Your task to perform on an android device: Is it going to rain tomorrow? Image 0: 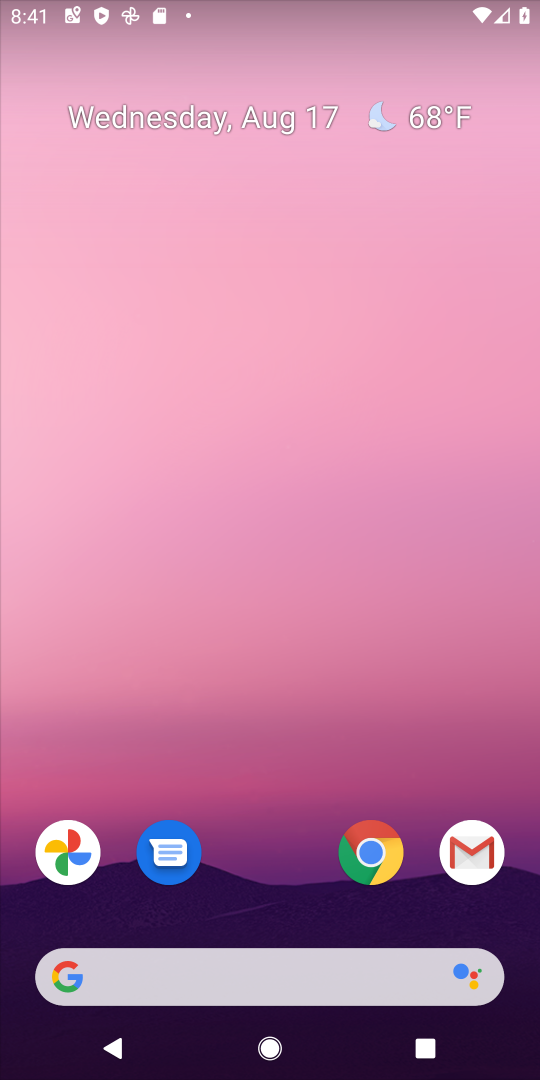
Step 0: click (163, 987)
Your task to perform on an android device: Is it going to rain tomorrow? Image 1: 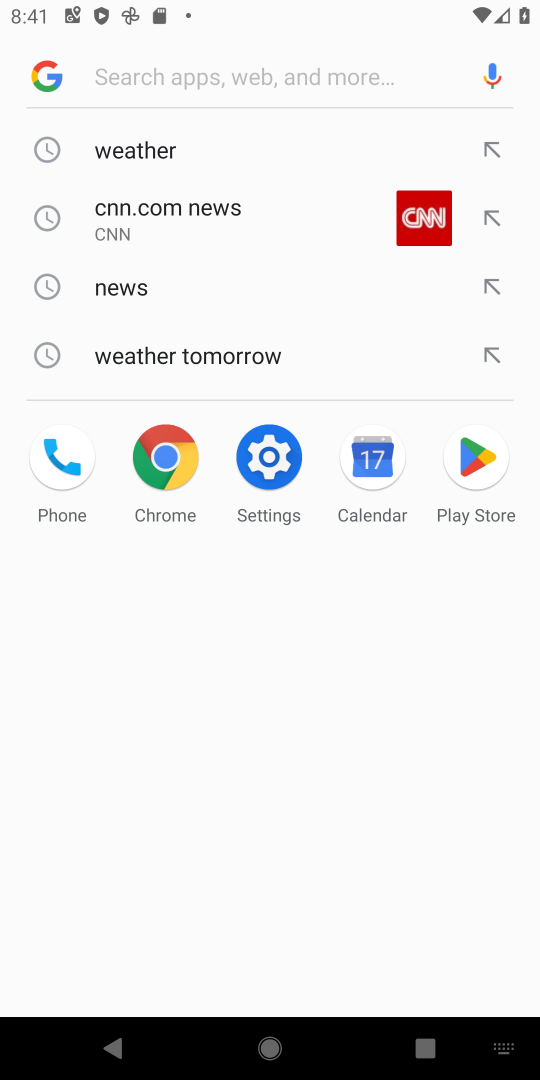
Step 1: click (123, 150)
Your task to perform on an android device: Is it going to rain tomorrow? Image 2: 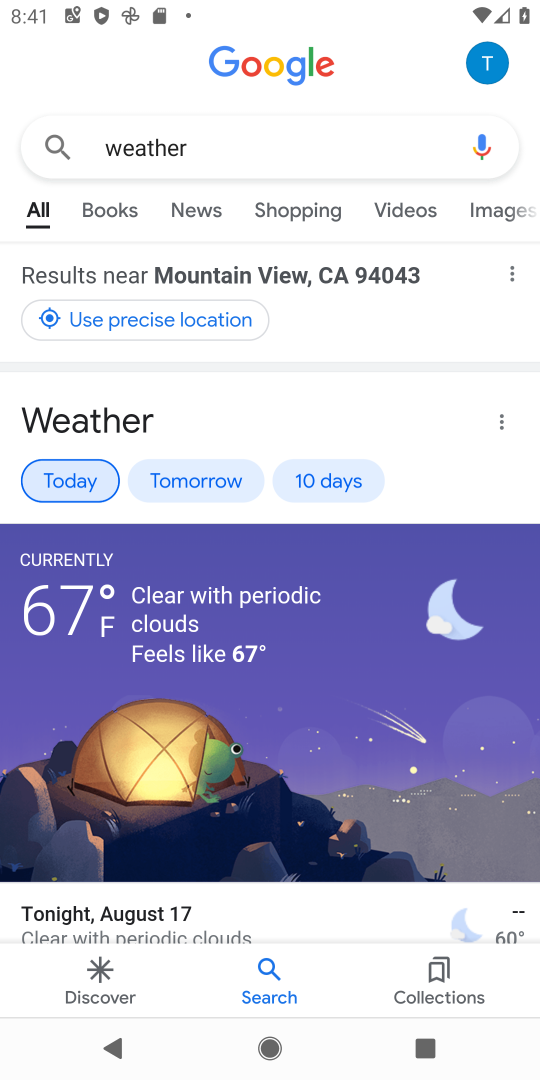
Step 2: click (196, 479)
Your task to perform on an android device: Is it going to rain tomorrow? Image 3: 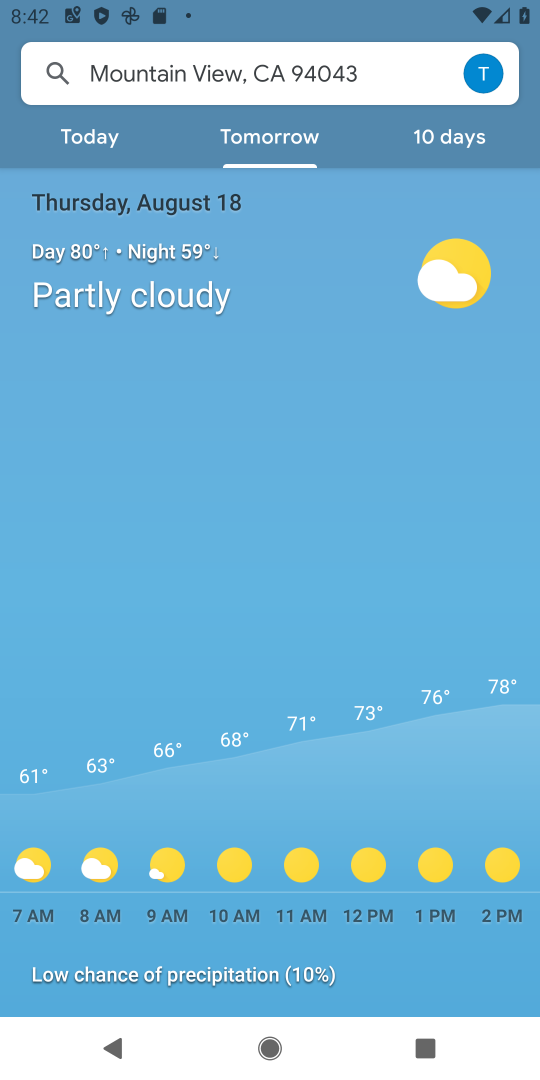
Step 3: task complete